Your task to perform on an android device: move a message to another label in the gmail app Image 0: 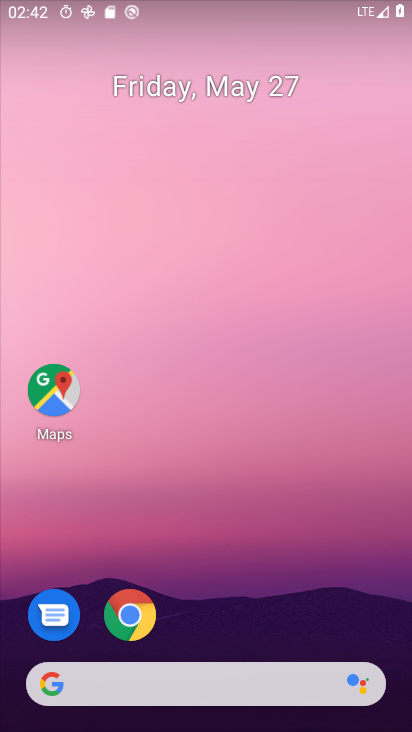
Step 0: drag from (374, 629) to (366, 238)
Your task to perform on an android device: move a message to another label in the gmail app Image 1: 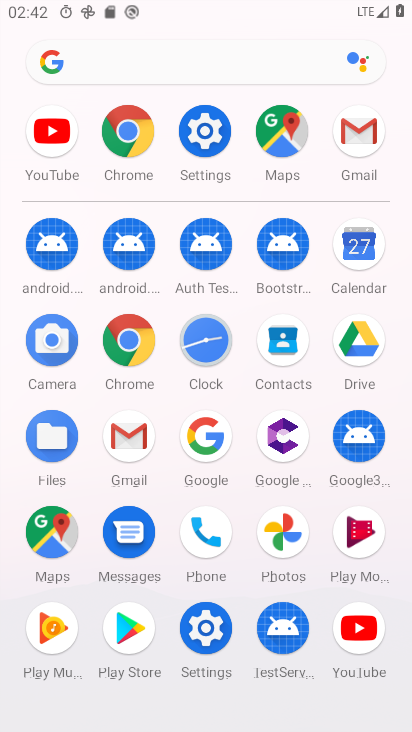
Step 1: click (133, 438)
Your task to perform on an android device: move a message to another label in the gmail app Image 2: 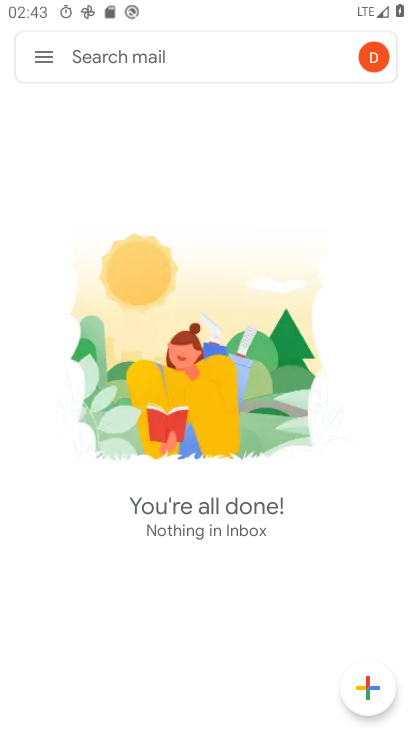
Step 2: task complete